Your task to perform on an android device: allow cookies in the chrome app Image 0: 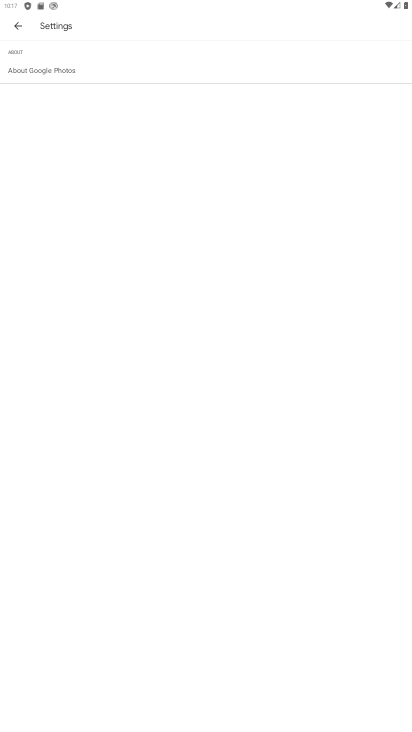
Step 0: press home button
Your task to perform on an android device: allow cookies in the chrome app Image 1: 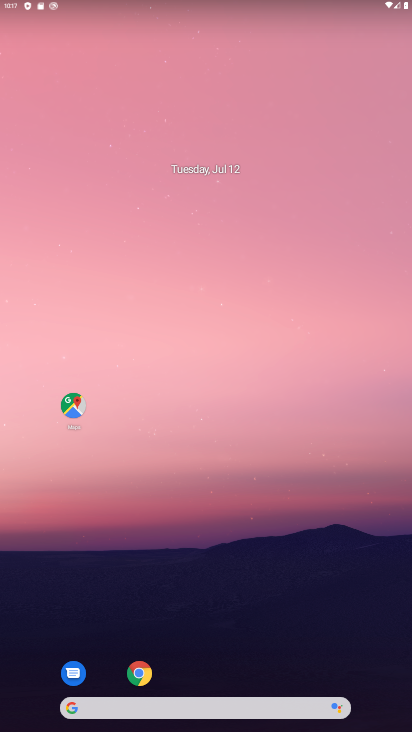
Step 1: drag from (236, 623) to (194, 144)
Your task to perform on an android device: allow cookies in the chrome app Image 2: 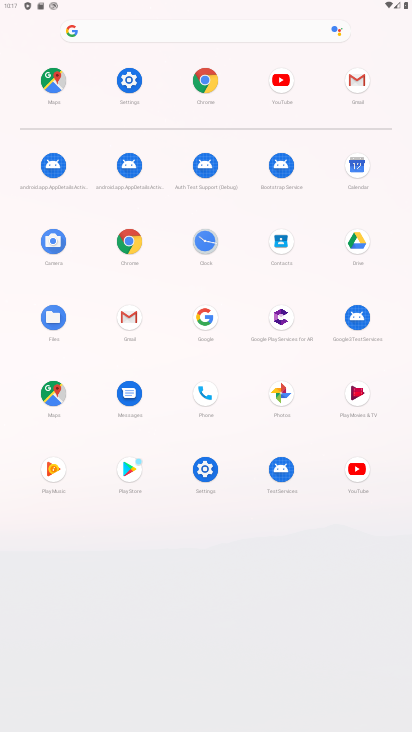
Step 2: click (129, 237)
Your task to perform on an android device: allow cookies in the chrome app Image 3: 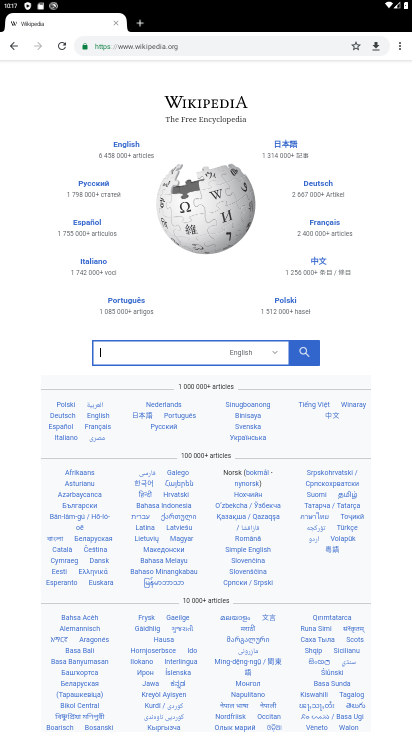
Step 3: drag from (401, 44) to (308, 175)
Your task to perform on an android device: allow cookies in the chrome app Image 4: 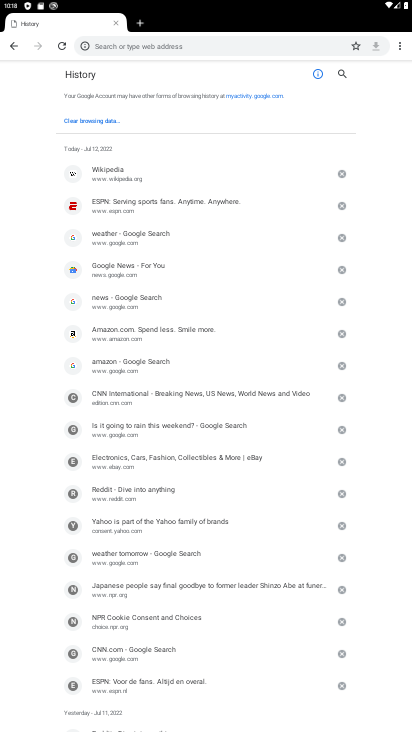
Step 4: click (81, 118)
Your task to perform on an android device: allow cookies in the chrome app Image 5: 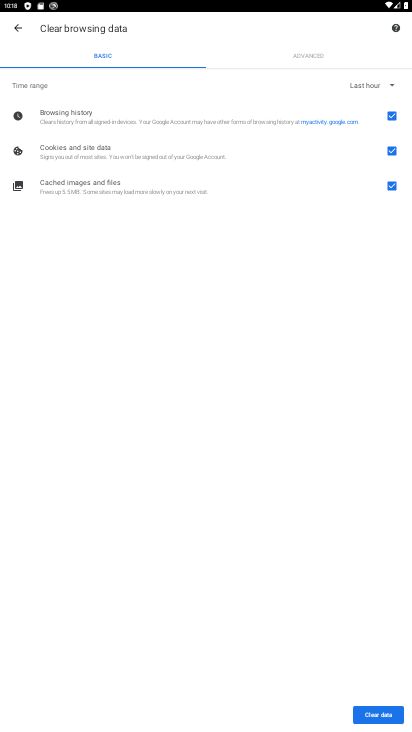
Step 5: click (387, 82)
Your task to perform on an android device: allow cookies in the chrome app Image 6: 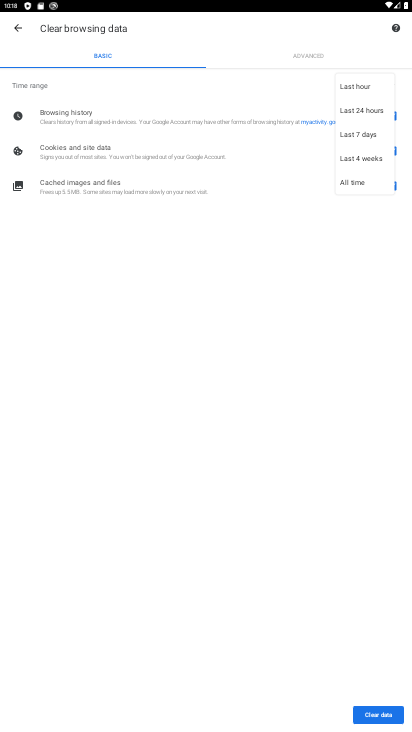
Step 6: click (387, 82)
Your task to perform on an android device: allow cookies in the chrome app Image 7: 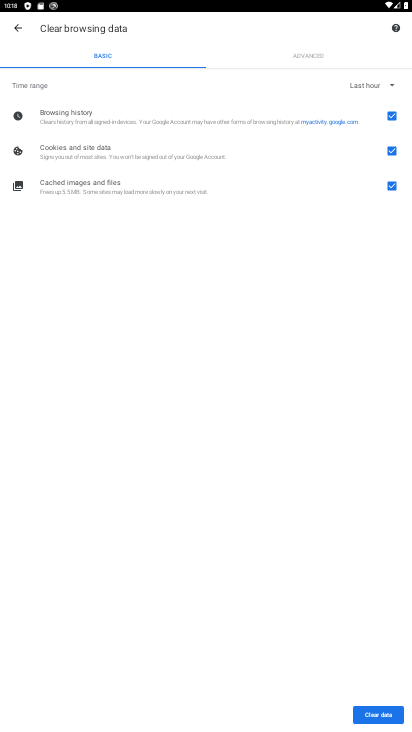
Step 7: click (387, 82)
Your task to perform on an android device: allow cookies in the chrome app Image 8: 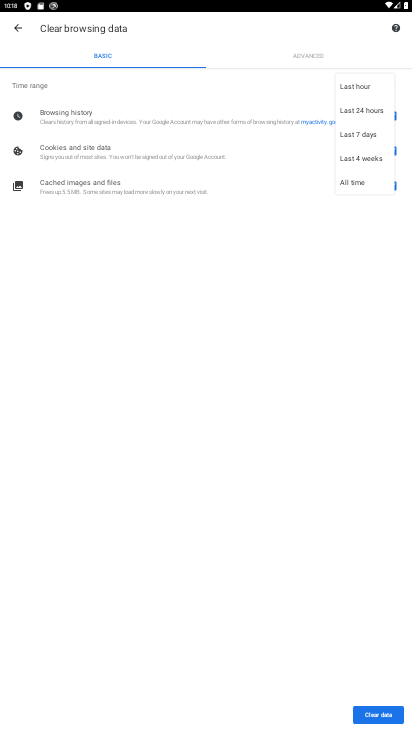
Step 8: click (353, 180)
Your task to perform on an android device: allow cookies in the chrome app Image 9: 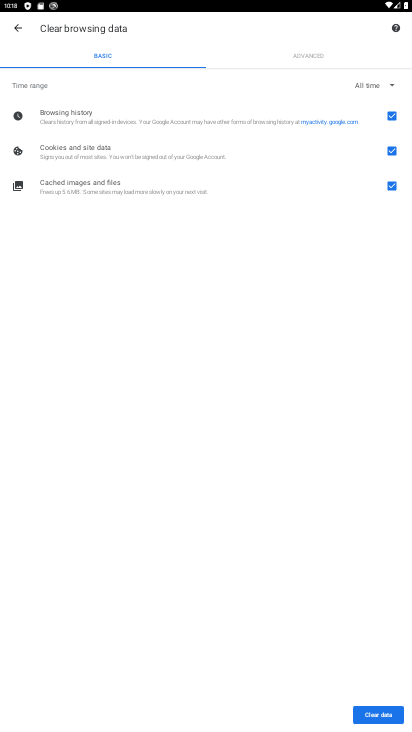
Step 9: click (369, 719)
Your task to perform on an android device: allow cookies in the chrome app Image 10: 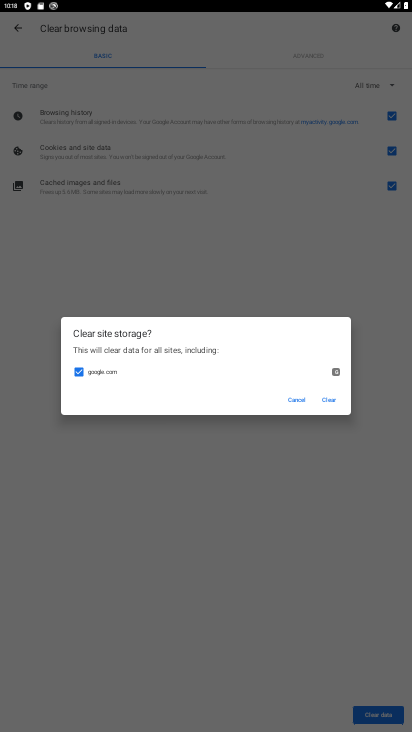
Step 10: click (336, 394)
Your task to perform on an android device: allow cookies in the chrome app Image 11: 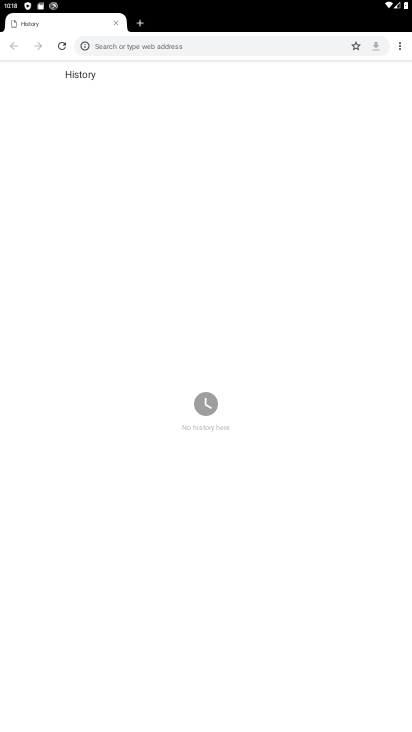
Step 11: task complete